Your task to perform on an android device: Do I have any events today? Image 0: 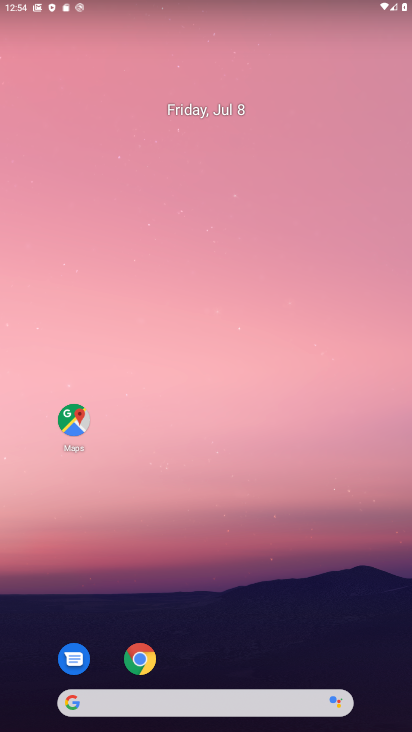
Step 0: drag from (341, 597) to (293, 249)
Your task to perform on an android device: Do I have any events today? Image 1: 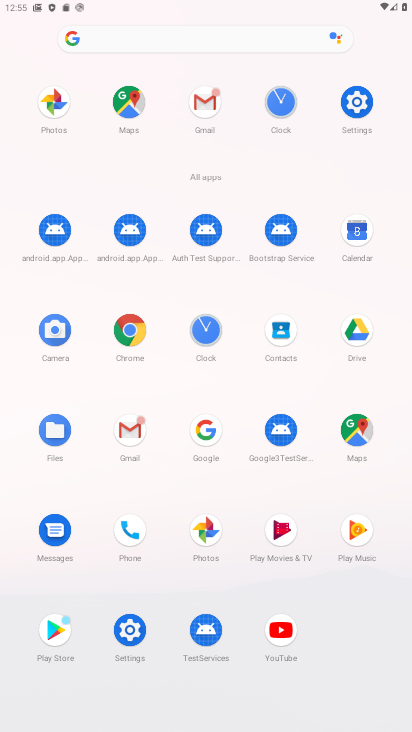
Step 1: click (351, 232)
Your task to perform on an android device: Do I have any events today? Image 2: 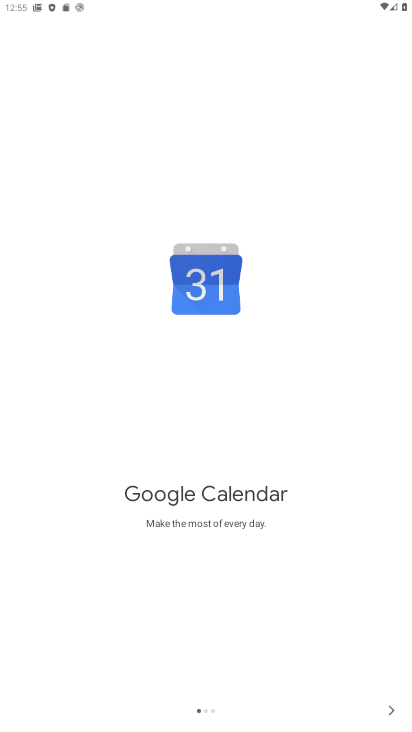
Step 2: click (390, 701)
Your task to perform on an android device: Do I have any events today? Image 3: 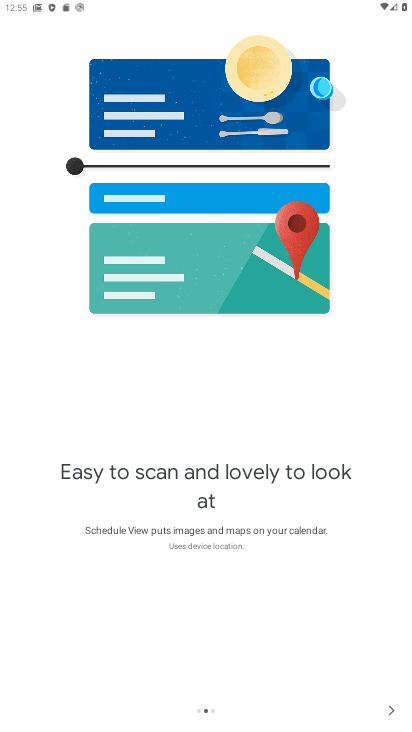
Step 3: click (390, 701)
Your task to perform on an android device: Do I have any events today? Image 4: 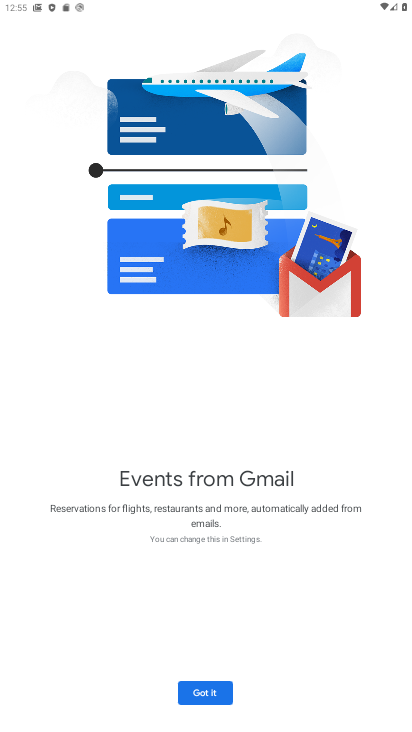
Step 4: click (204, 688)
Your task to perform on an android device: Do I have any events today? Image 5: 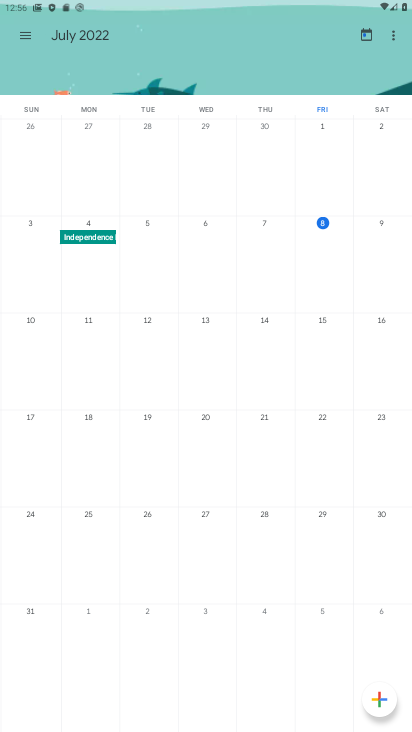
Step 5: click (26, 36)
Your task to perform on an android device: Do I have any events today? Image 6: 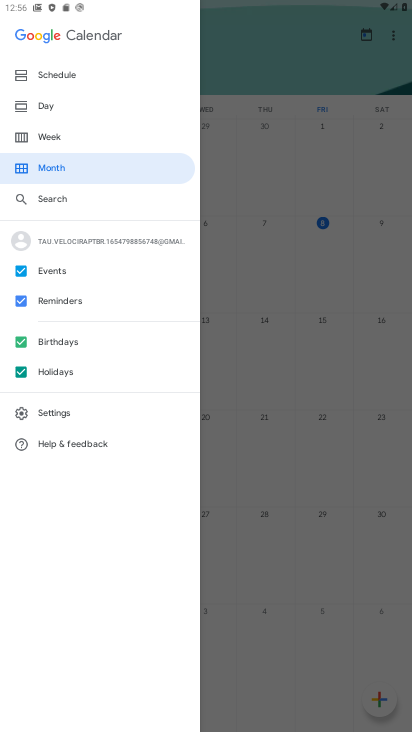
Step 6: click (37, 98)
Your task to perform on an android device: Do I have any events today? Image 7: 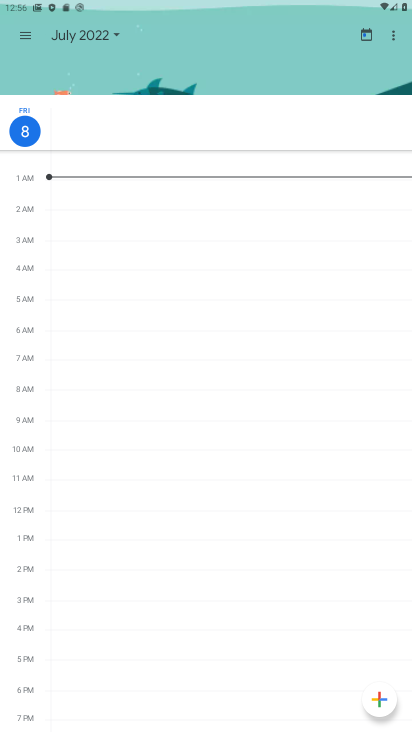
Step 7: task complete